Your task to perform on an android device: clear all cookies in the chrome app Image 0: 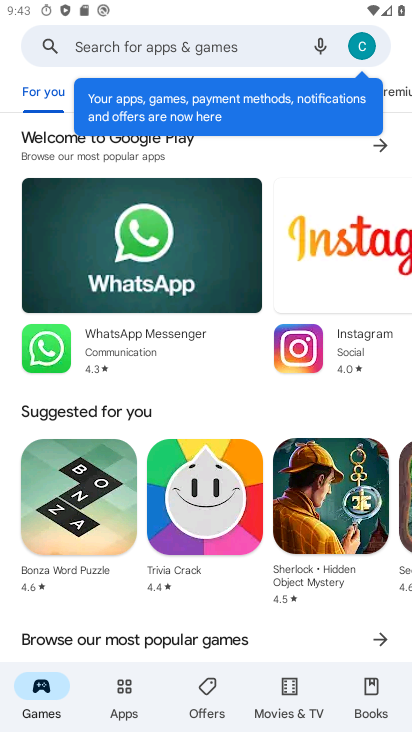
Step 0: press home button
Your task to perform on an android device: clear all cookies in the chrome app Image 1: 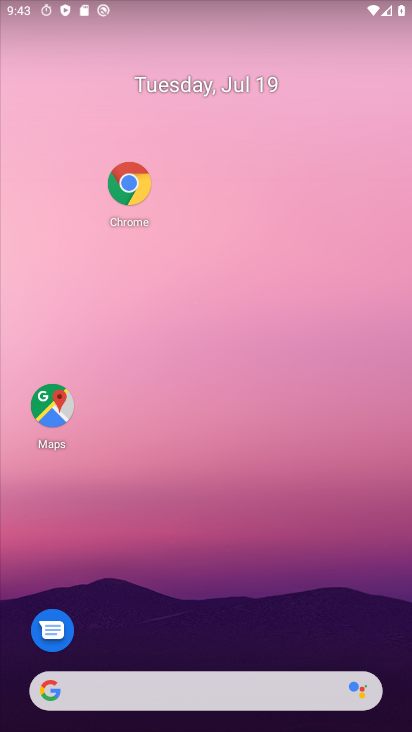
Step 1: drag from (179, 660) to (187, 62)
Your task to perform on an android device: clear all cookies in the chrome app Image 2: 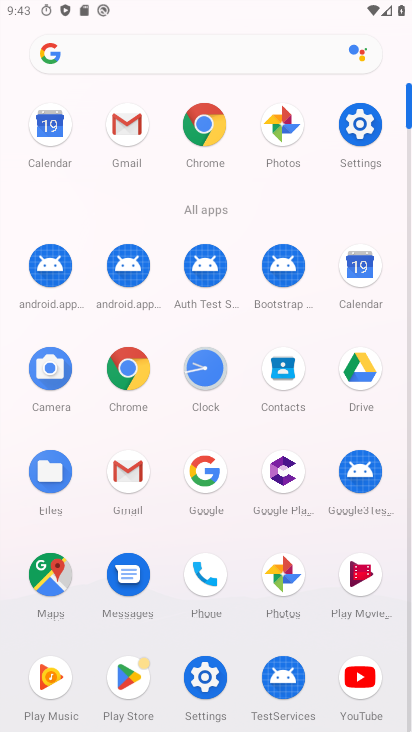
Step 2: click (115, 371)
Your task to perform on an android device: clear all cookies in the chrome app Image 3: 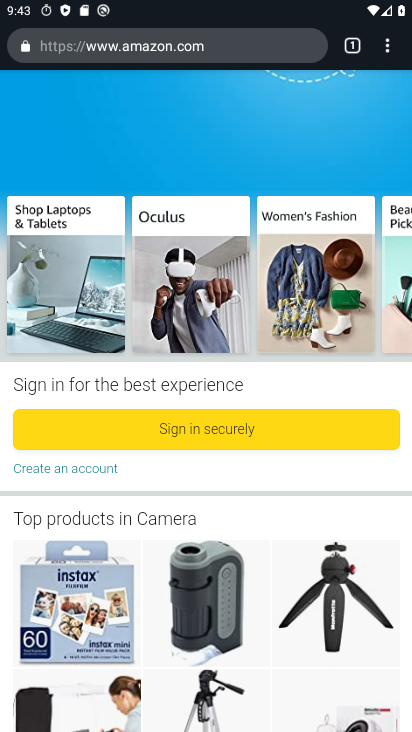
Step 3: click (380, 58)
Your task to perform on an android device: clear all cookies in the chrome app Image 4: 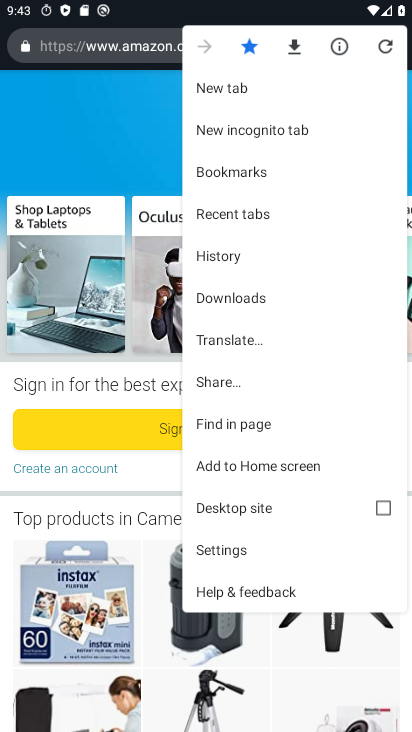
Step 4: click (213, 254)
Your task to perform on an android device: clear all cookies in the chrome app Image 5: 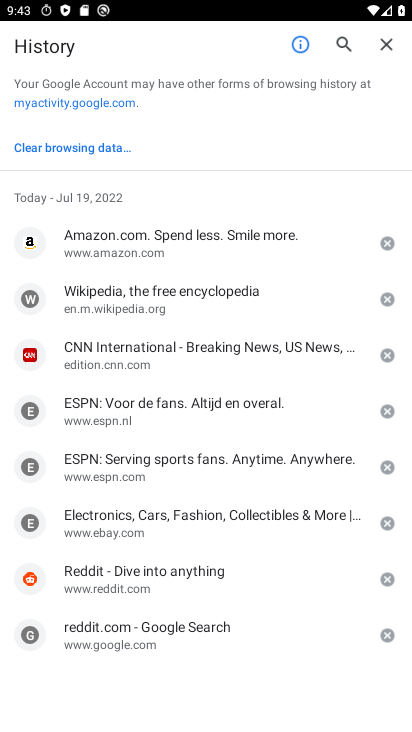
Step 5: click (61, 141)
Your task to perform on an android device: clear all cookies in the chrome app Image 6: 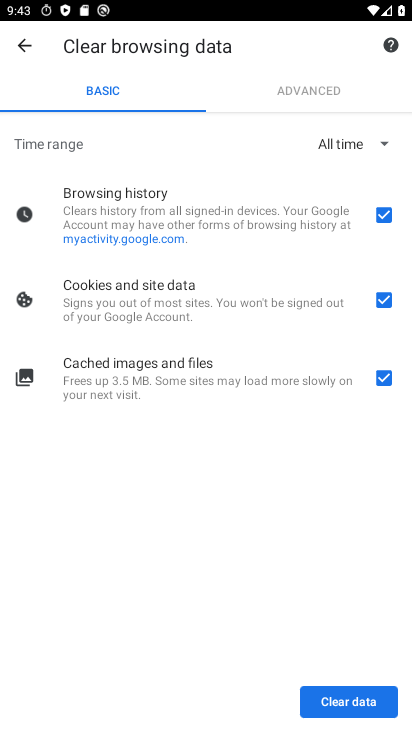
Step 6: click (373, 699)
Your task to perform on an android device: clear all cookies in the chrome app Image 7: 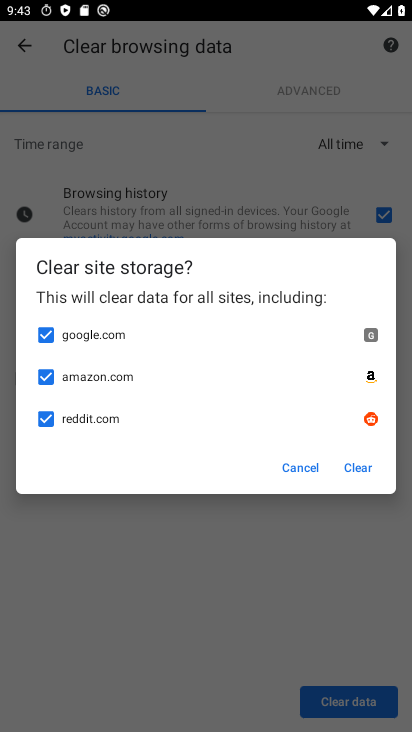
Step 7: click (349, 465)
Your task to perform on an android device: clear all cookies in the chrome app Image 8: 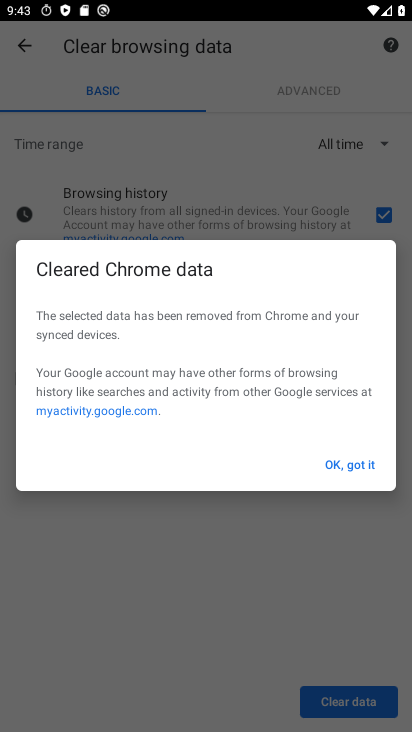
Step 8: task complete